Your task to perform on an android device: change timer sound Image 0: 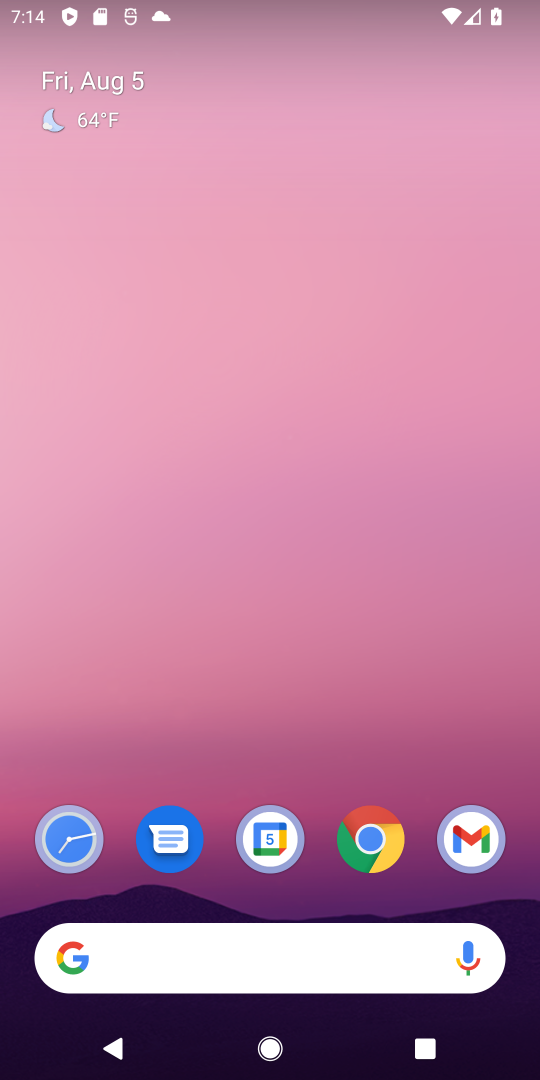
Step 0: drag from (315, 800) to (313, 103)
Your task to perform on an android device: change timer sound Image 1: 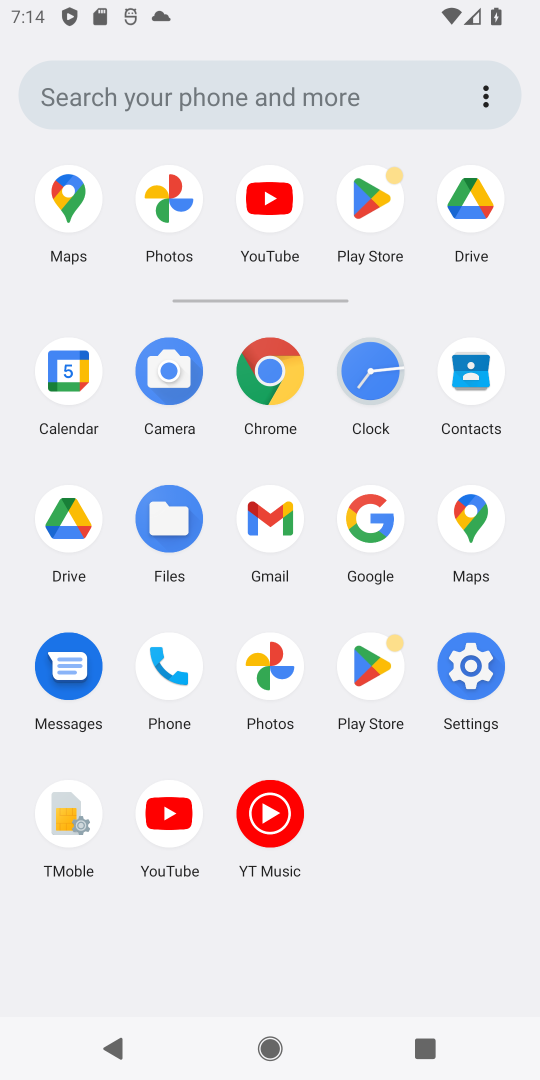
Step 1: click (367, 371)
Your task to perform on an android device: change timer sound Image 2: 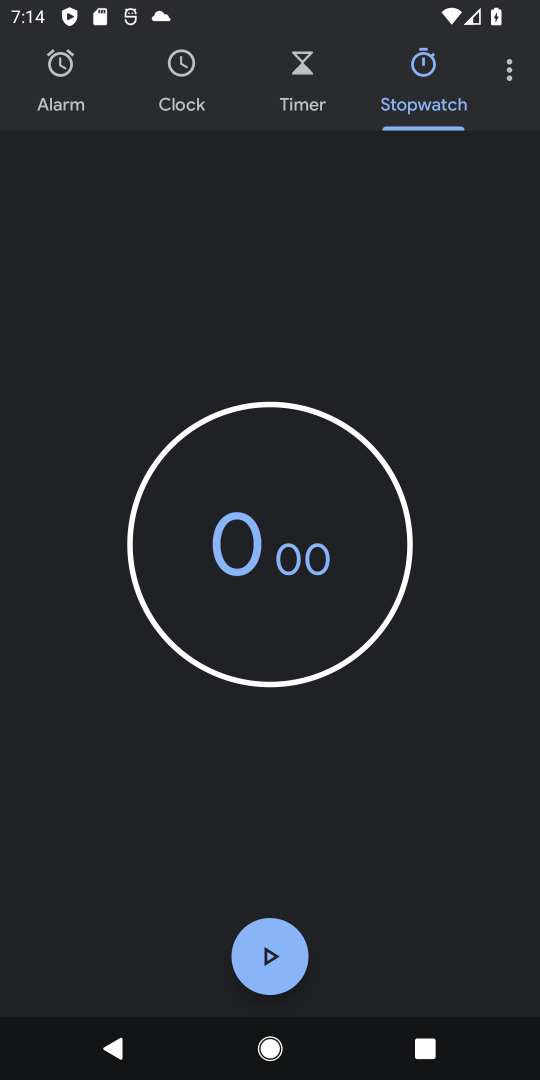
Step 2: click (509, 83)
Your task to perform on an android device: change timer sound Image 3: 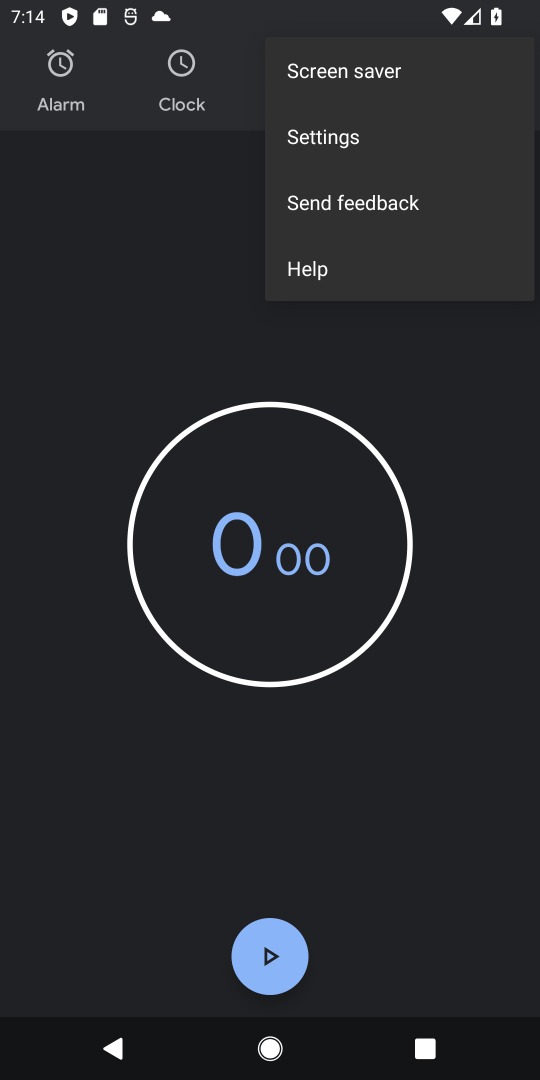
Step 3: click (333, 131)
Your task to perform on an android device: change timer sound Image 4: 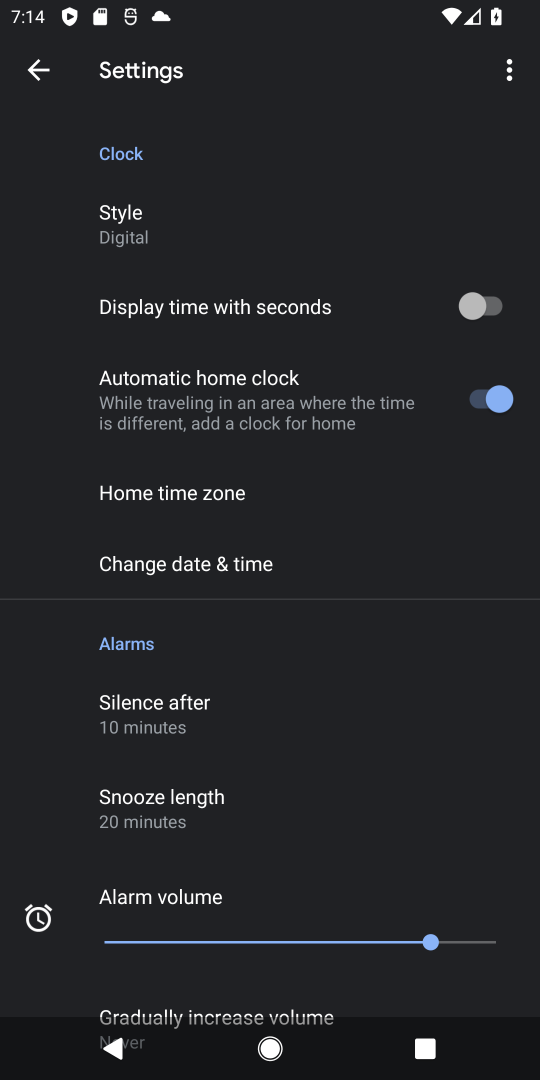
Step 4: drag from (208, 826) to (220, 534)
Your task to perform on an android device: change timer sound Image 5: 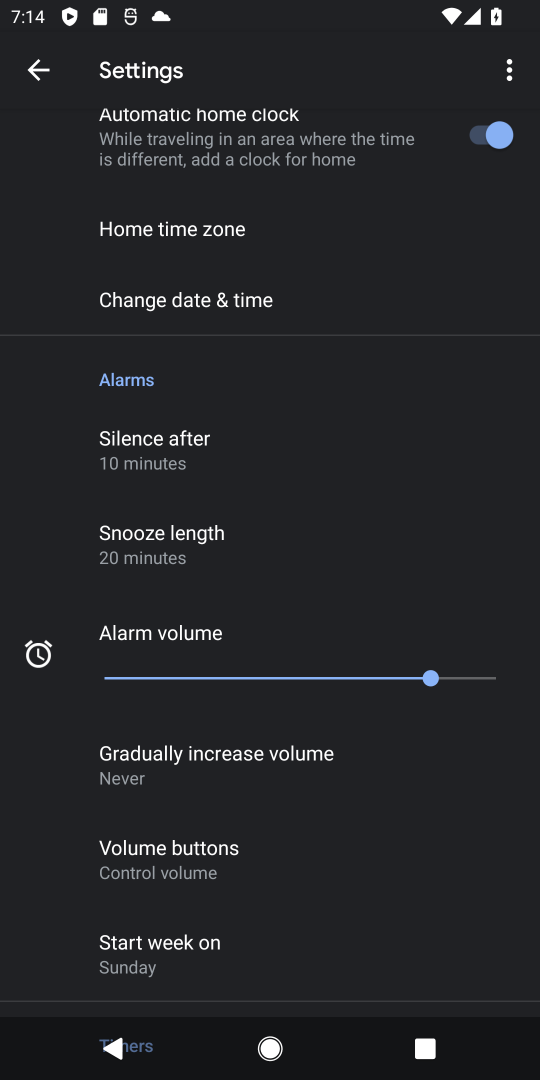
Step 5: drag from (207, 908) to (245, 586)
Your task to perform on an android device: change timer sound Image 6: 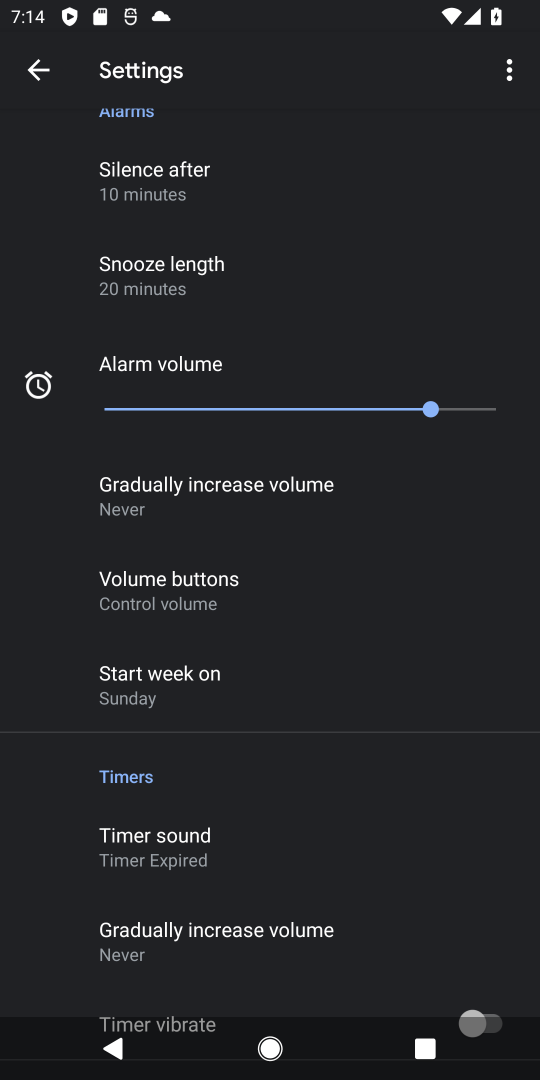
Step 6: click (162, 840)
Your task to perform on an android device: change timer sound Image 7: 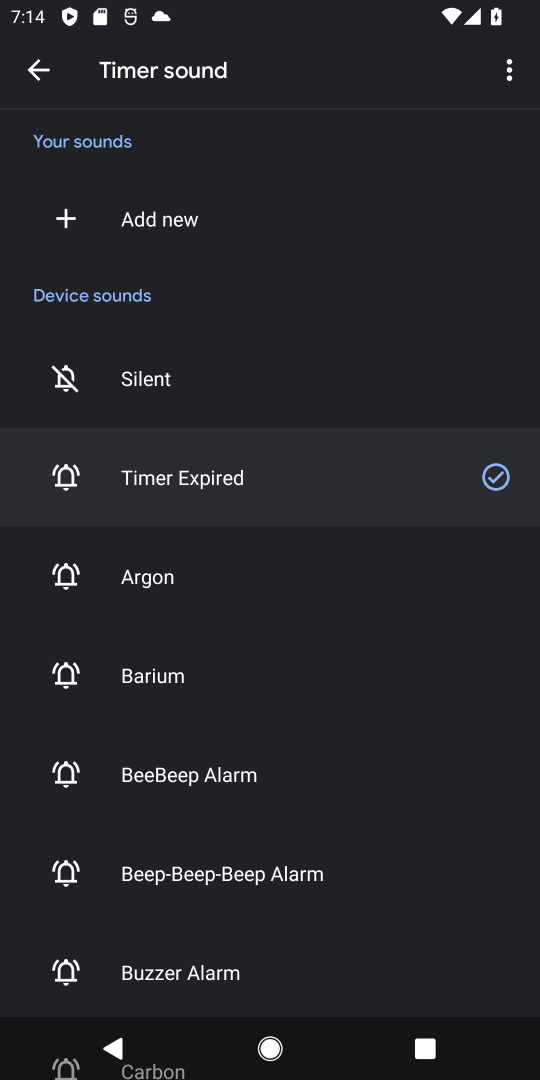
Step 7: click (174, 970)
Your task to perform on an android device: change timer sound Image 8: 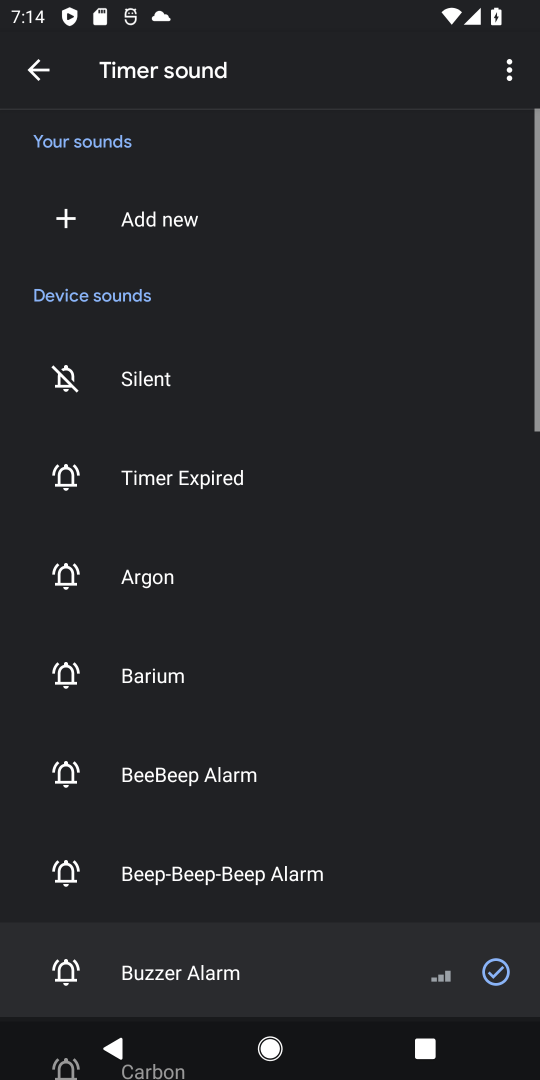
Step 8: task complete